Your task to perform on an android device: find photos in the google photos app Image 0: 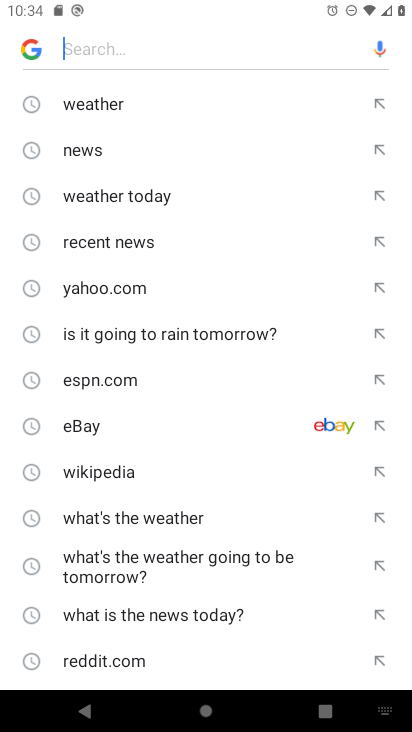
Step 0: press home button
Your task to perform on an android device: find photos in the google photos app Image 1: 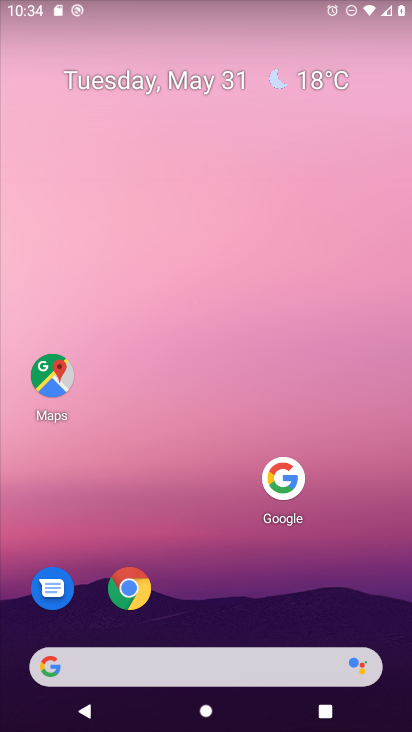
Step 1: drag from (169, 661) to (229, 292)
Your task to perform on an android device: find photos in the google photos app Image 2: 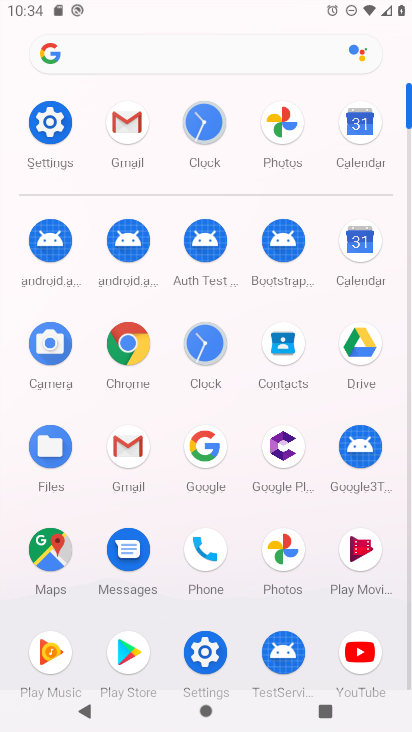
Step 2: click (283, 549)
Your task to perform on an android device: find photos in the google photos app Image 3: 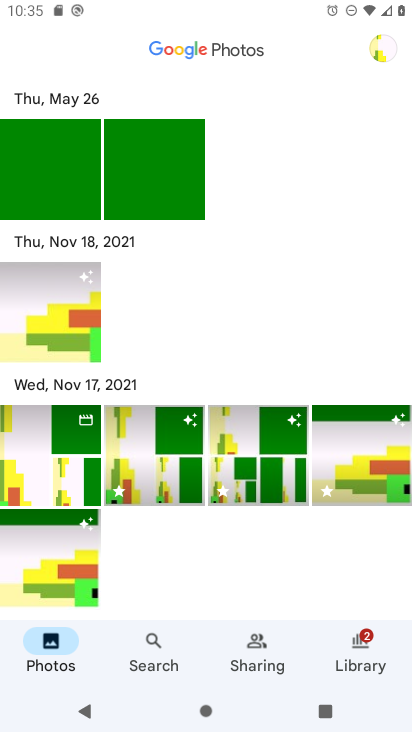
Step 3: task complete